Your task to perform on an android device: Open settings Image 0: 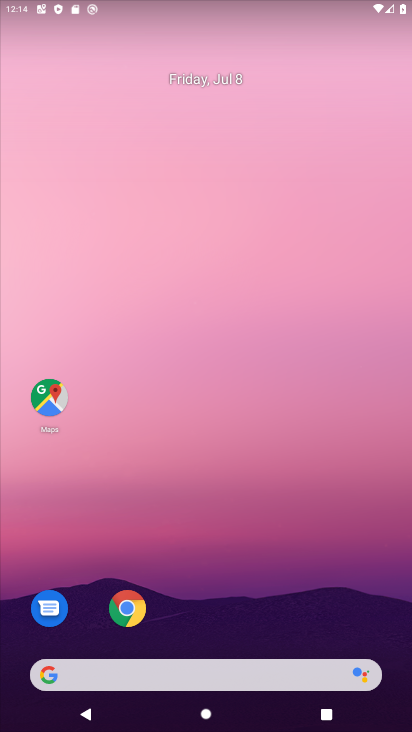
Step 0: click (367, 22)
Your task to perform on an android device: Open settings Image 1: 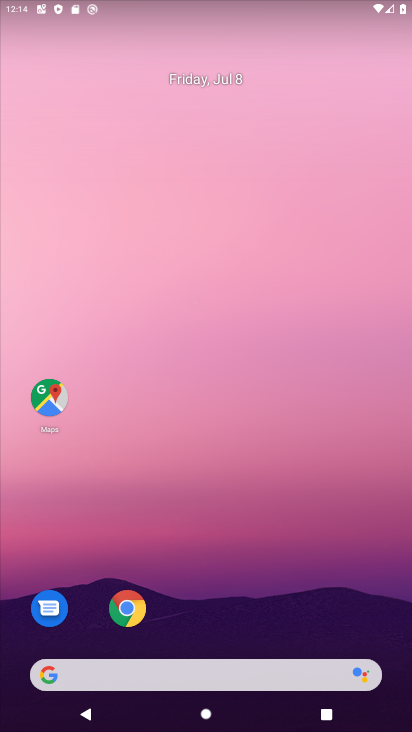
Step 1: drag from (127, 460) to (400, 14)
Your task to perform on an android device: Open settings Image 2: 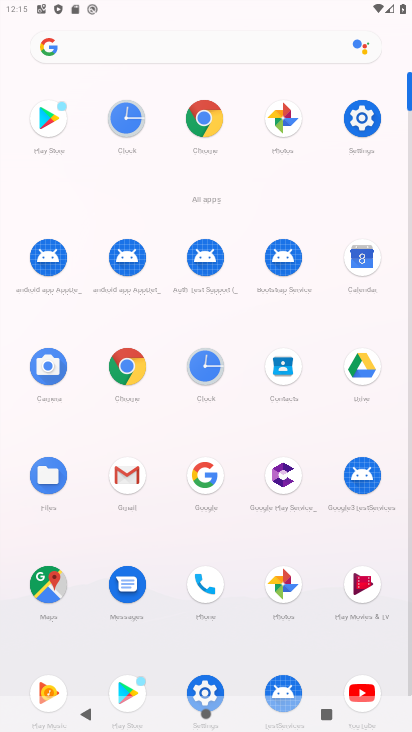
Step 2: click (207, 686)
Your task to perform on an android device: Open settings Image 3: 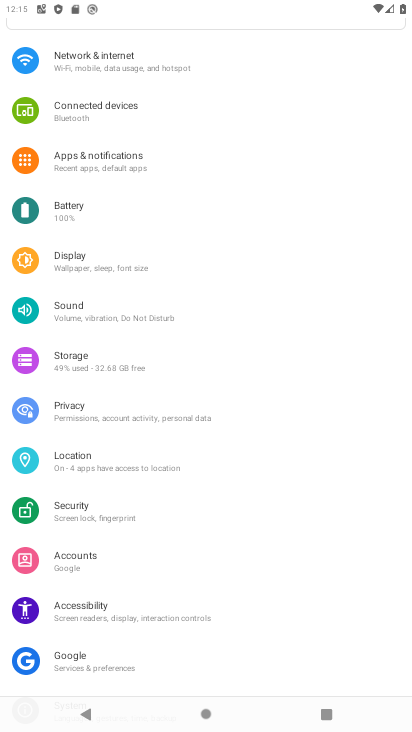
Step 3: task complete